Your task to perform on an android device: Go to CNN.com Image 0: 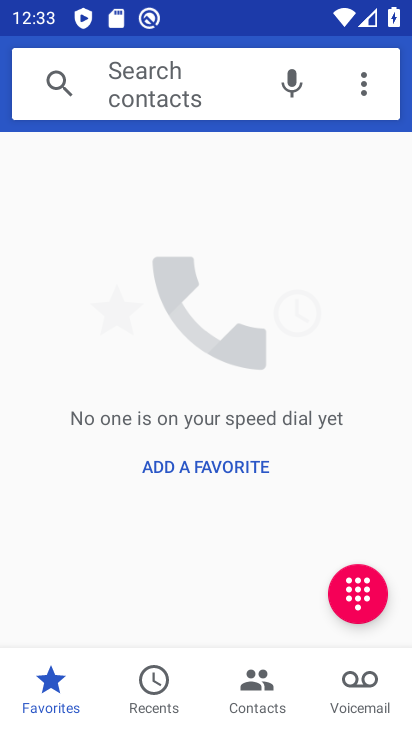
Step 0: press home button
Your task to perform on an android device: Go to CNN.com Image 1: 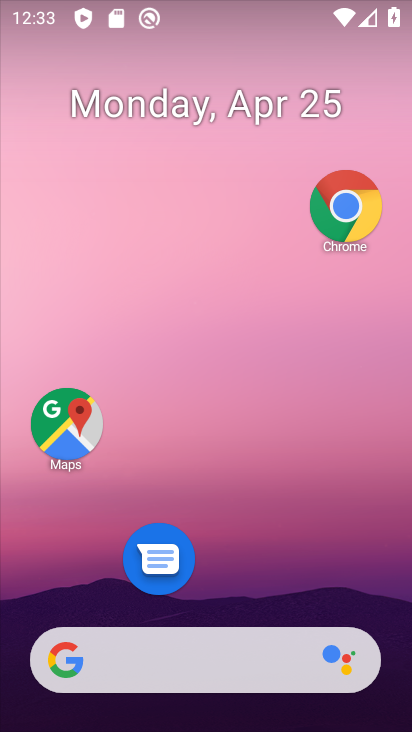
Step 1: click (343, 222)
Your task to perform on an android device: Go to CNN.com Image 2: 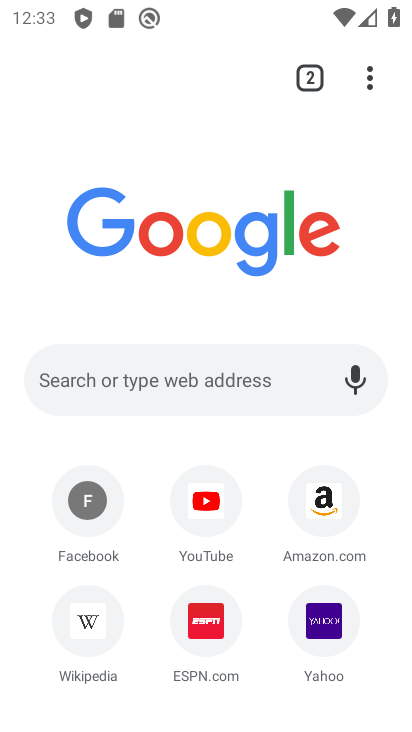
Step 2: click (107, 371)
Your task to perform on an android device: Go to CNN.com Image 3: 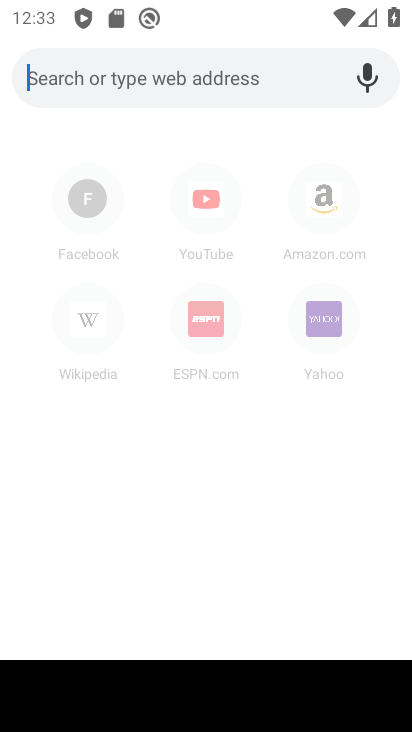
Step 3: type "cnn.com"
Your task to perform on an android device: Go to CNN.com Image 4: 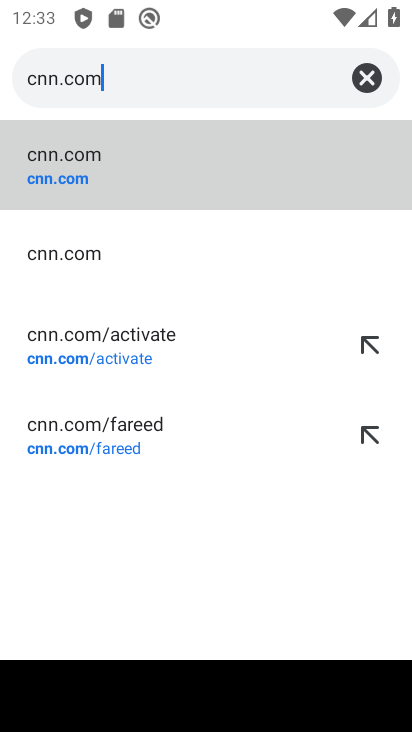
Step 4: click (123, 184)
Your task to perform on an android device: Go to CNN.com Image 5: 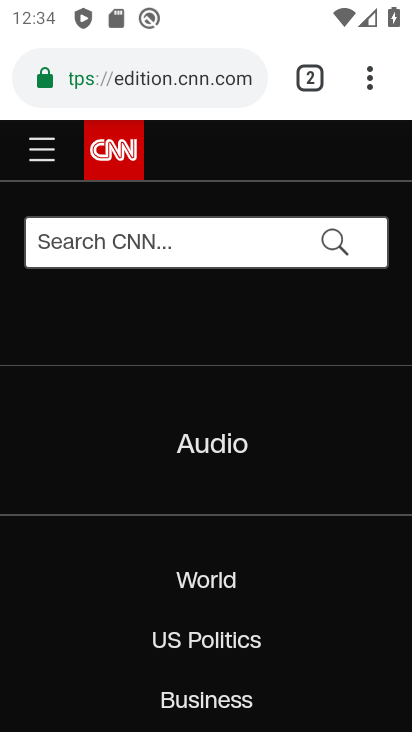
Step 5: task complete